Your task to perform on an android device: change the clock display to digital Image 0: 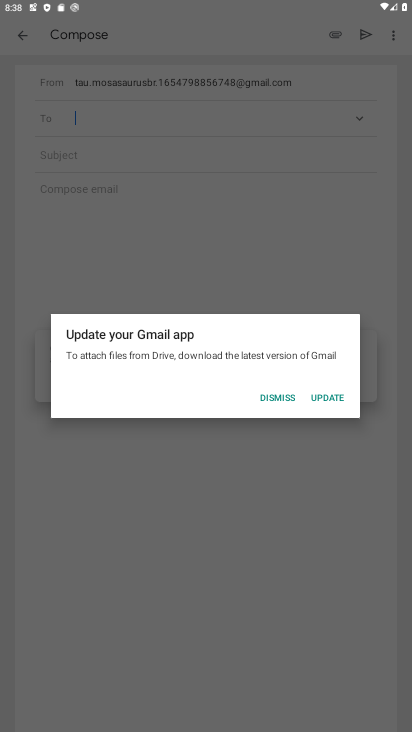
Step 0: press home button
Your task to perform on an android device: change the clock display to digital Image 1: 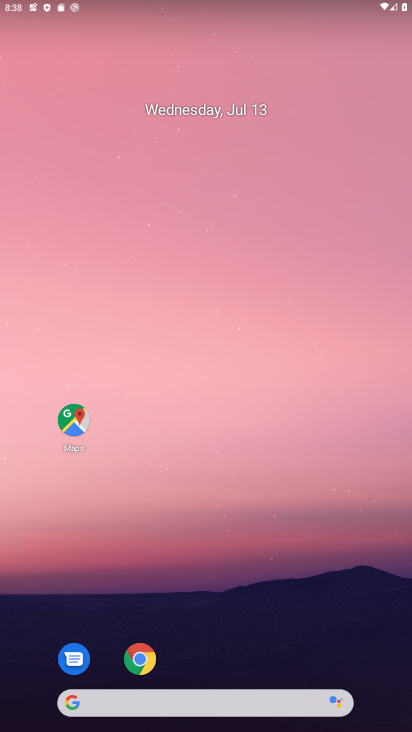
Step 1: drag from (24, 672) to (246, 104)
Your task to perform on an android device: change the clock display to digital Image 2: 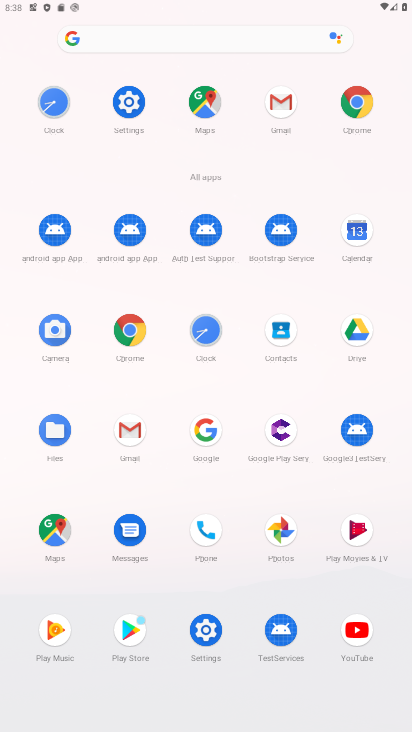
Step 2: click (210, 335)
Your task to perform on an android device: change the clock display to digital Image 3: 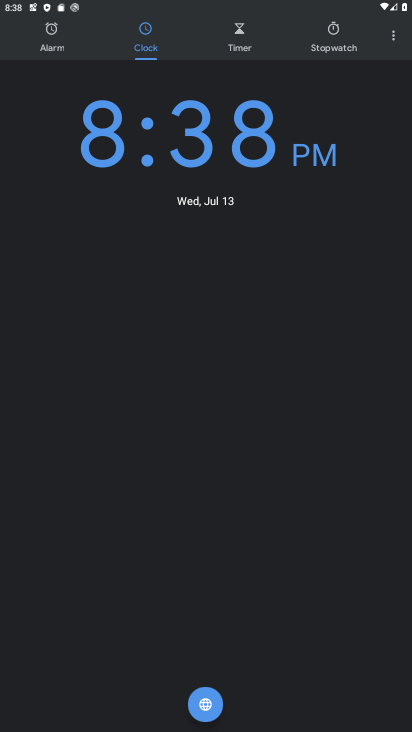
Step 3: click (384, 35)
Your task to perform on an android device: change the clock display to digital Image 4: 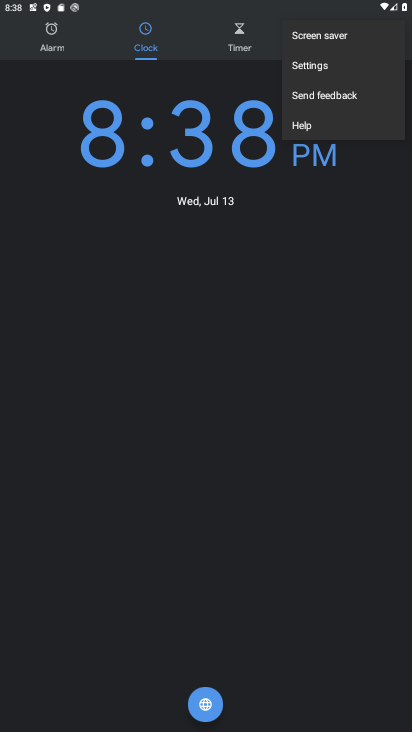
Step 4: click (327, 73)
Your task to perform on an android device: change the clock display to digital Image 5: 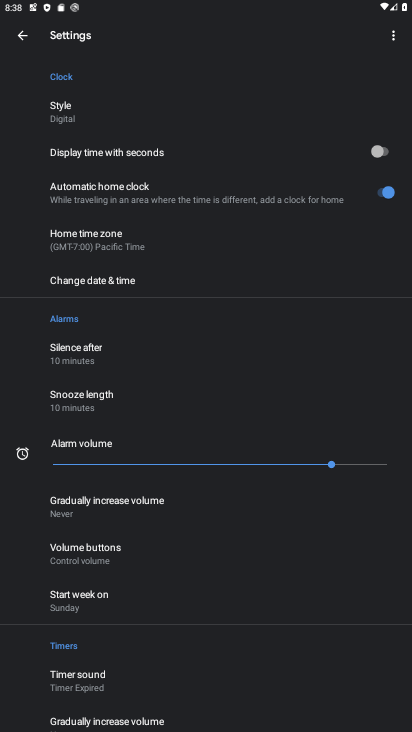
Step 5: click (90, 125)
Your task to perform on an android device: change the clock display to digital Image 6: 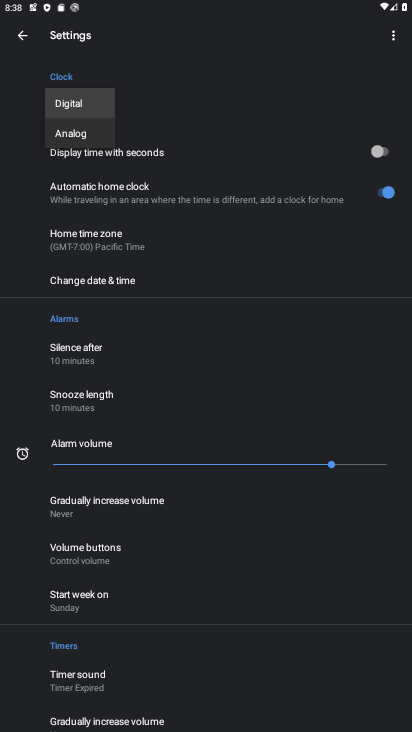
Step 6: click (78, 100)
Your task to perform on an android device: change the clock display to digital Image 7: 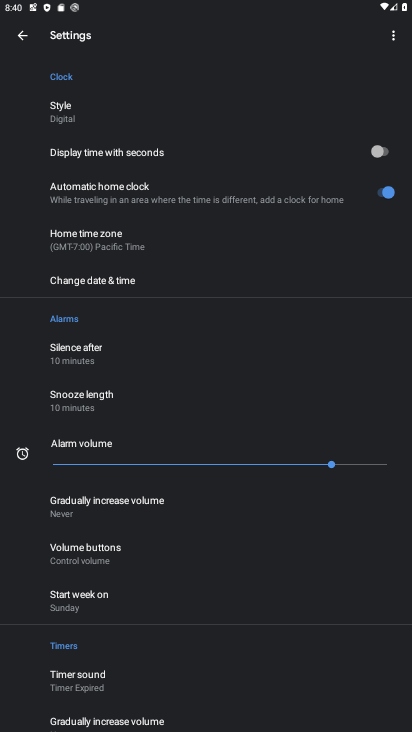
Step 7: task complete